Your task to perform on an android device: toggle data saver in the chrome app Image 0: 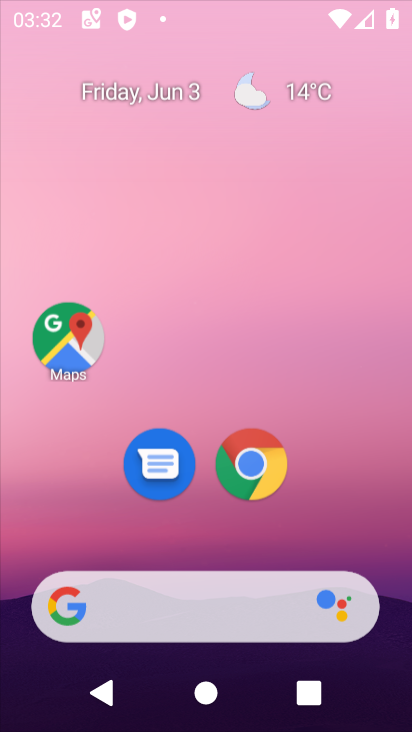
Step 0: press home button
Your task to perform on an android device: toggle data saver in the chrome app Image 1: 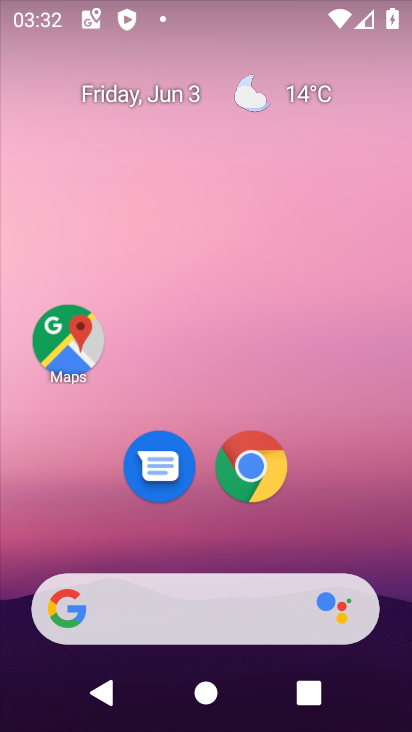
Step 1: click (250, 468)
Your task to perform on an android device: toggle data saver in the chrome app Image 2: 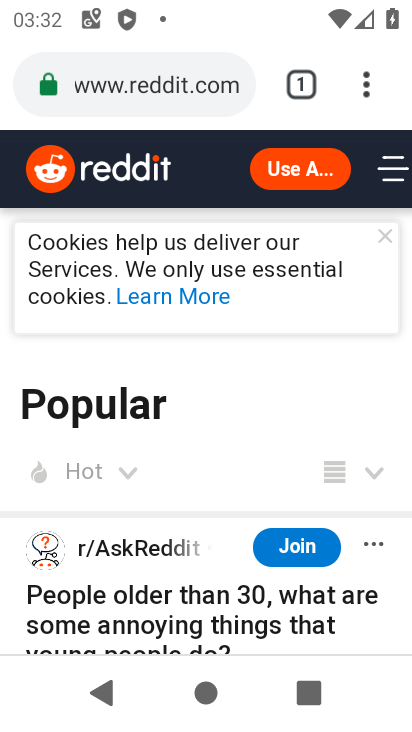
Step 2: click (363, 85)
Your task to perform on an android device: toggle data saver in the chrome app Image 3: 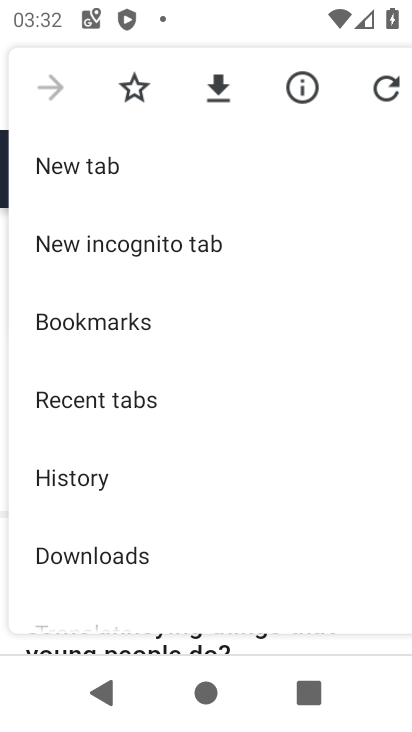
Step 3: drag from (235, 564) to (265, 160)
Your task to perform on an android device: toggle data saver in the chrome app Image 4: 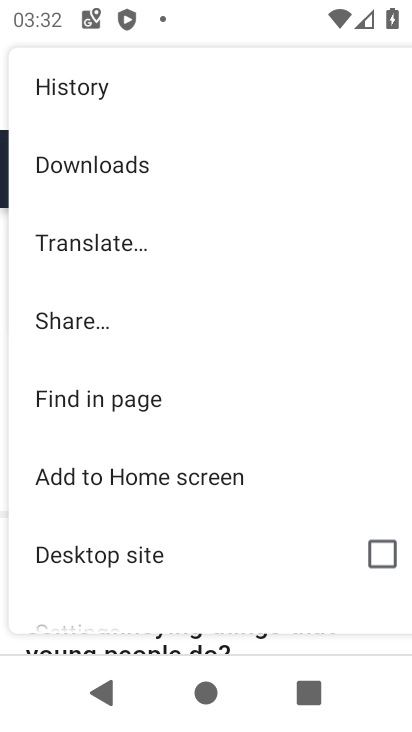
Step 4: drag from (196, 561) to (226, 138)
Your task to perform on an android device: toggle data saver in the chrome app Image 5: 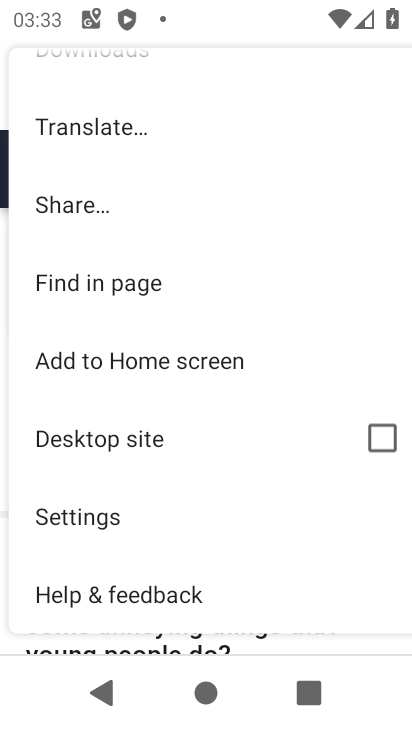
Step 5: click (144, 517)
Your task to perform on an android device: toggle data saver in the chrome app Image 6: 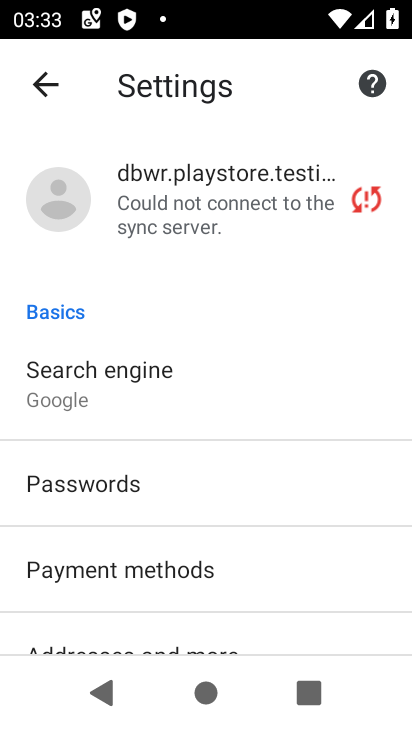
Step 6: drag from (236, 613) to (235, 170)
Your task to perform on an android device: toggle data saver in the chrome app Image 7: 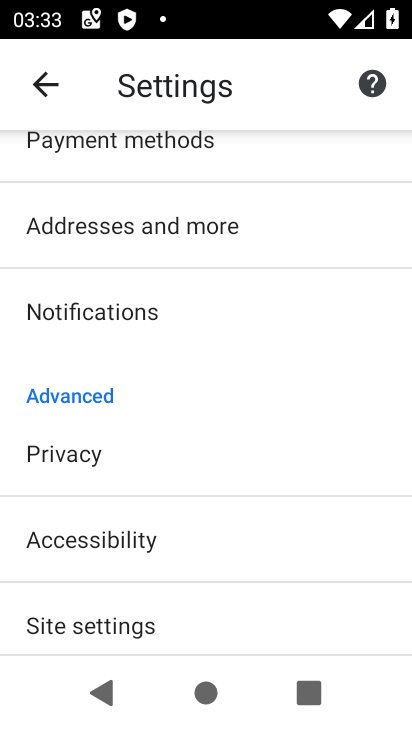
Step 7: drag from (205, 612) to (219, 239)
Your task to perform on an android device: toggle data saver in the chrome app Image 8: 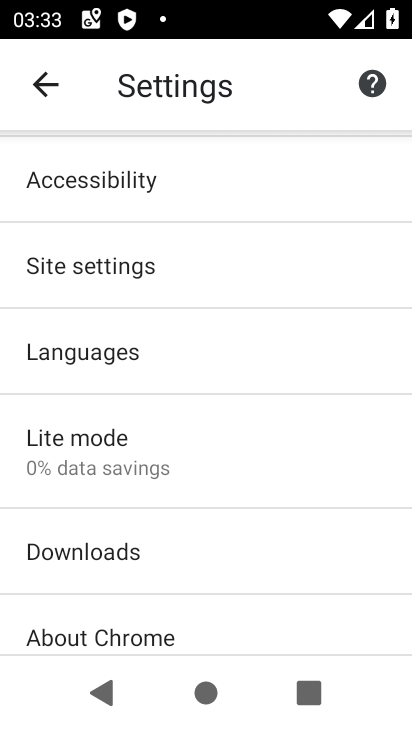
Step 8: click (186, 451)
Your task to perform on an android device: toggle data saver in the chrome app Image 9: 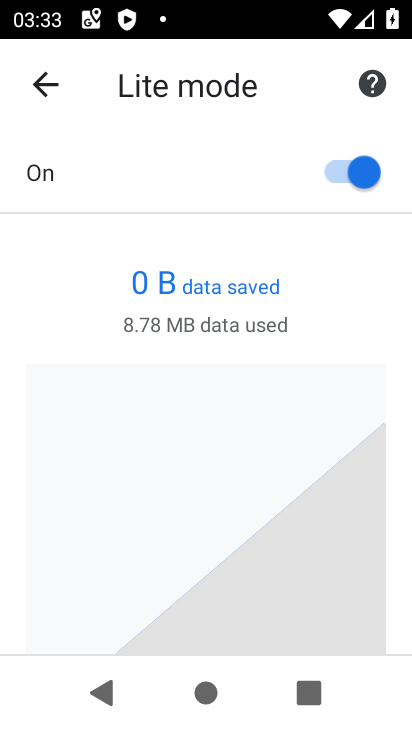
Step 9: click (341, 158)
Your task to perform on an android device: toggle data saver in the chrome app Image 10: 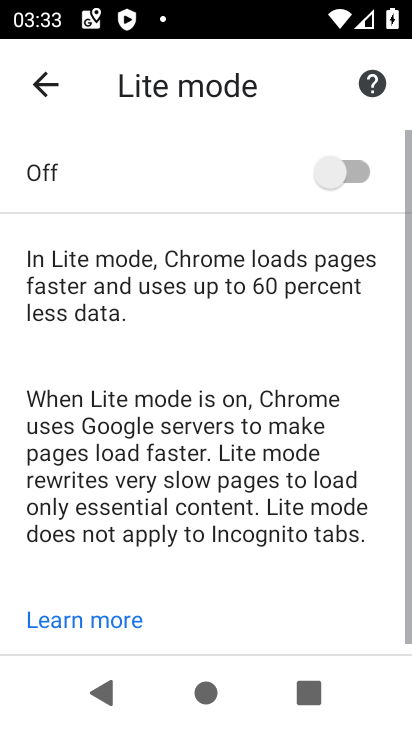
Step 10: task complete